Your task to perform on an android device: find photos in the google photos app Image 0: 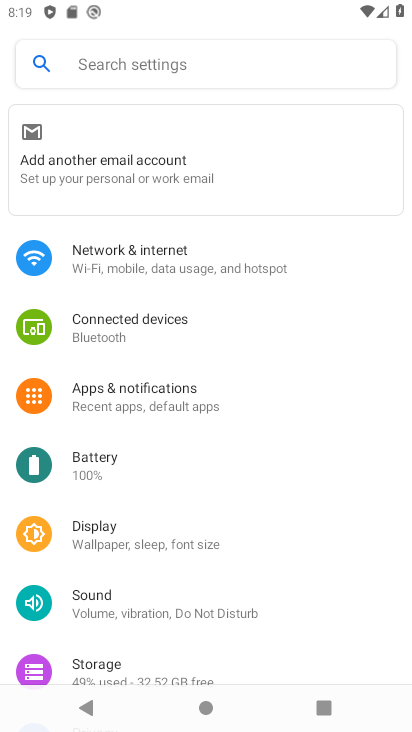
Step 0: press home button
Your task to perform on an android device: find photos in the google photos app Image 1: 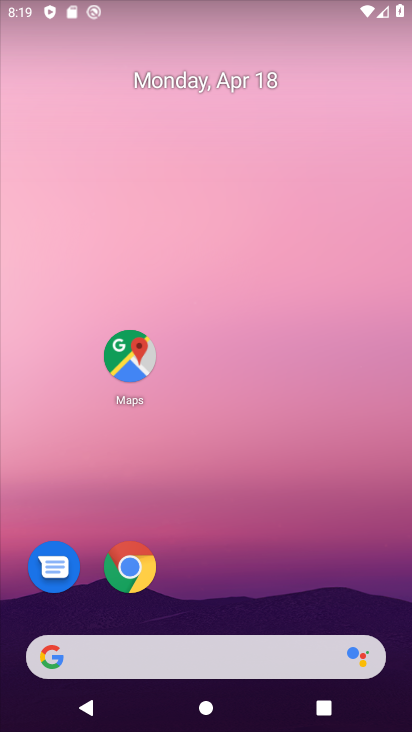
Step 1: drag from (282, 688) to (259, 135)
Your task to perform on an android device: find photos in the google photos app Image 2: 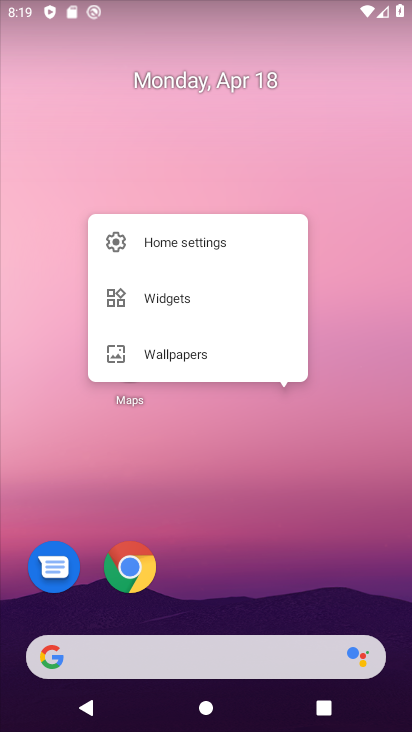
Step 2: click (244, 418)
Your task to perform on an android device: find photos in the google photos app Image 3: 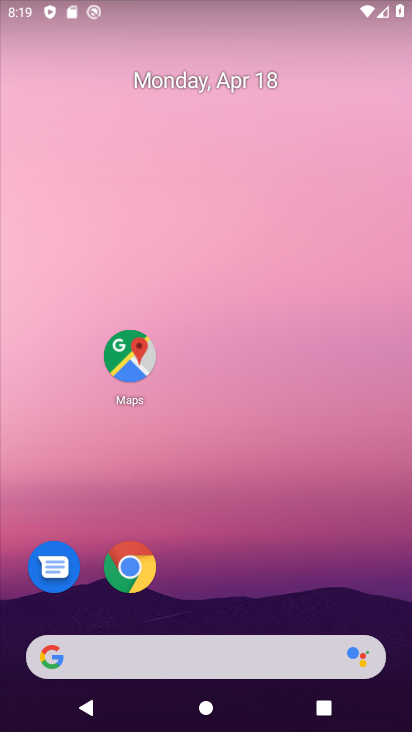
Step 3: drag from (251, 683) to (208, 264)
Your task to perform on an android device: find photos in the google photos app Image 4: 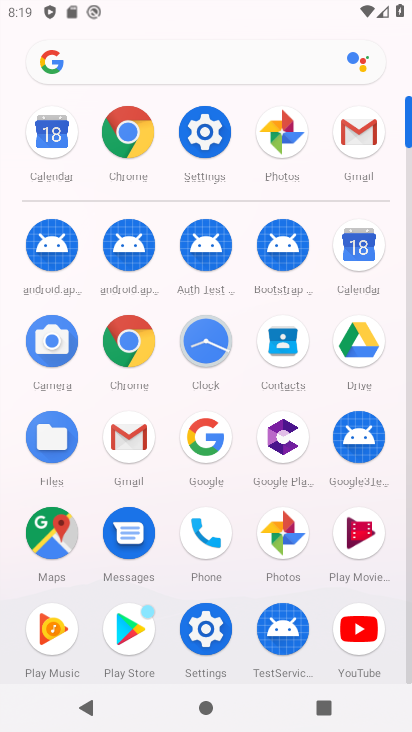
Step 4: click (279, 529)
Your task to perform on an android device: find photos in the google photos app Image 5: 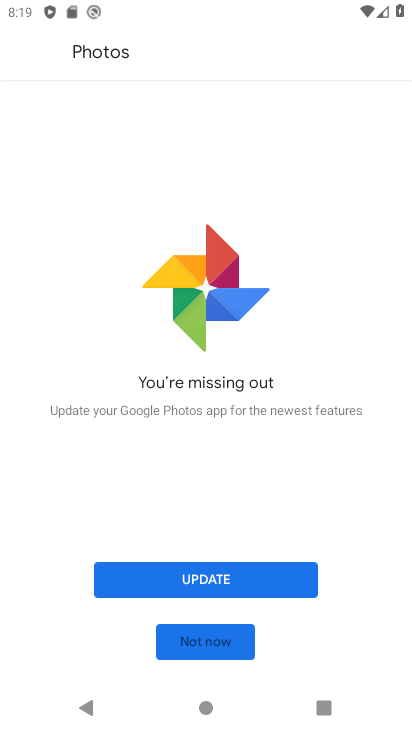
Step 5: click (216, 635)
Your task to perform on an android device: find photos in the google photos app Image 6: 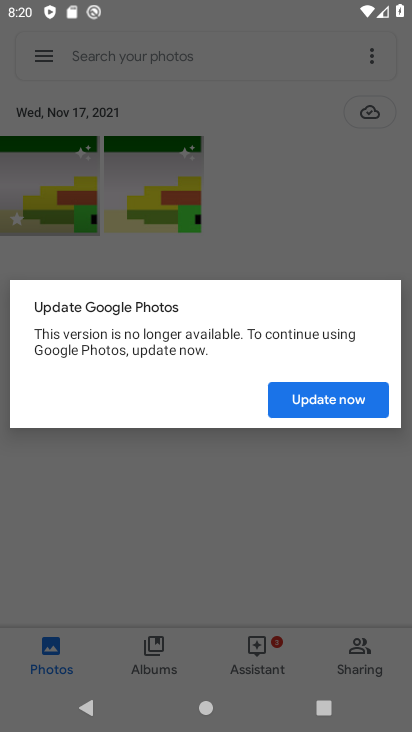
Step 6: click (317, 415)
Your task to perform on an android device: find photos in the google photos app Image 7: 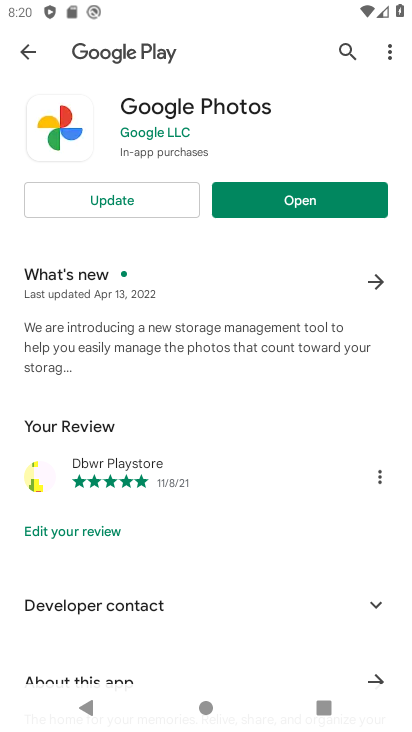
Step 7: click (297, 188)
Your task to perform on an android device: find photos in the google photos app Image 8: 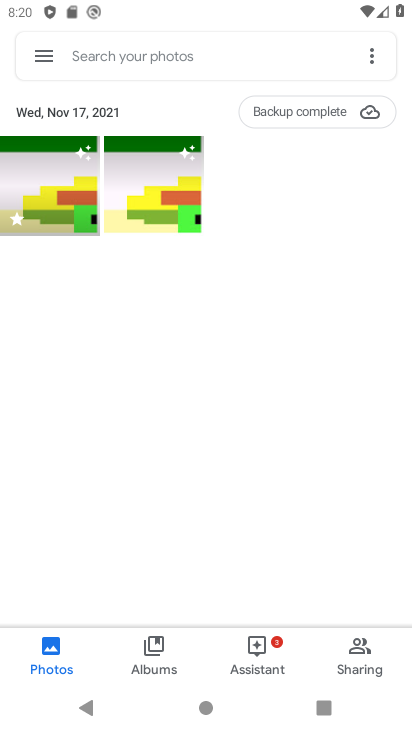
Step 8: task complete